Your task to perform on an android device: Check the weather Image 0: 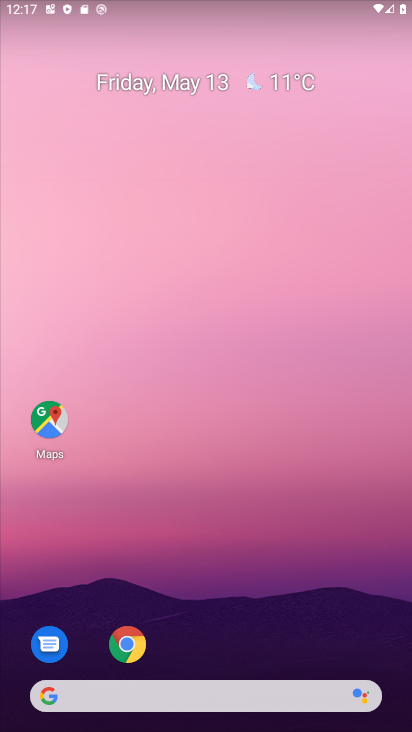
Step 0: click (253, 85)
Your task to perform on an android device: Check the weather Image 1: 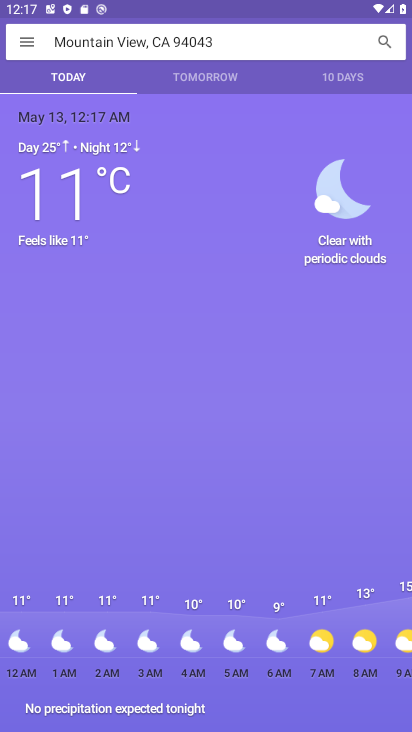
Step 1: task complete